Your task to perform on an android device: Go to Android settings Image 0: 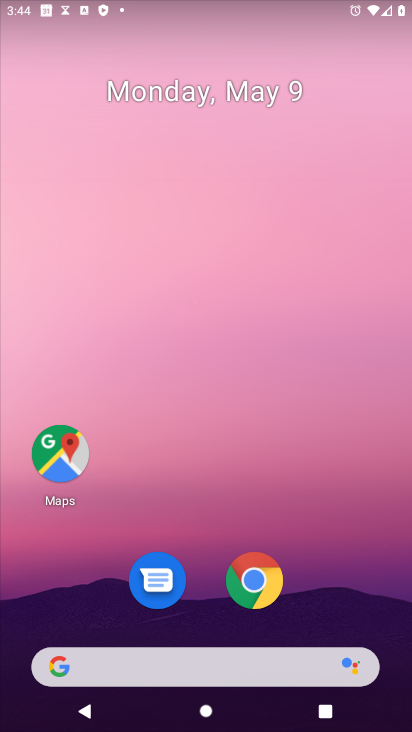
Step 0: drag from (300, 446) to (237, 62)
Your task to perform on an android device: Go to Android settings Image 1: 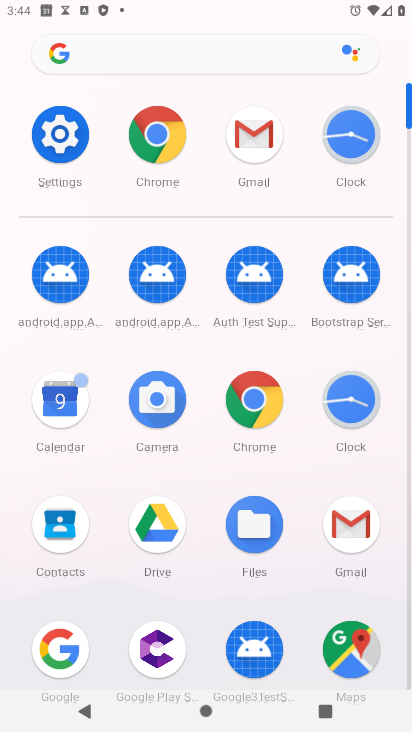
Step 1: click (52, 135)
Your task to perform on an android device: Go to Android settings Image 2: 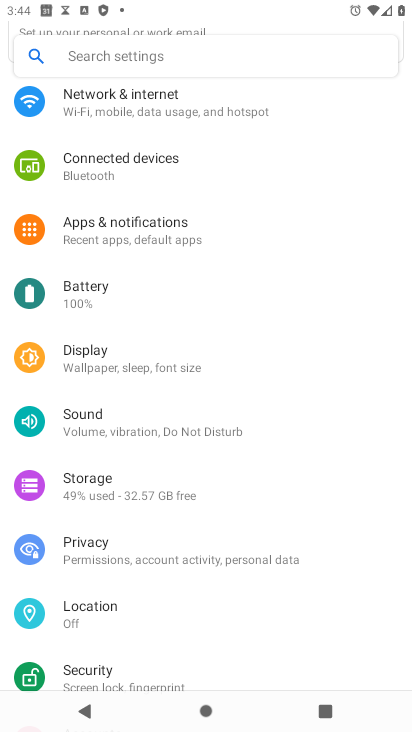
Step 2: drag from (246, 643) to (235, 114)
Your task to perform on an android device: Go to Android settings Image 3: 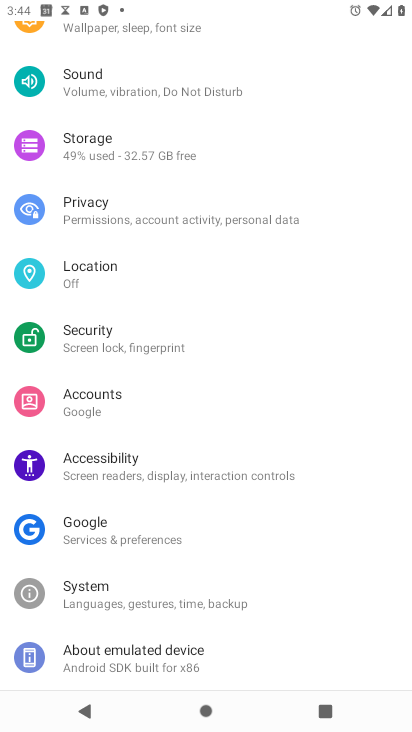
Step 3: click (144, 651)
Your task to perform on an android device: Go to Android settings Image 4: 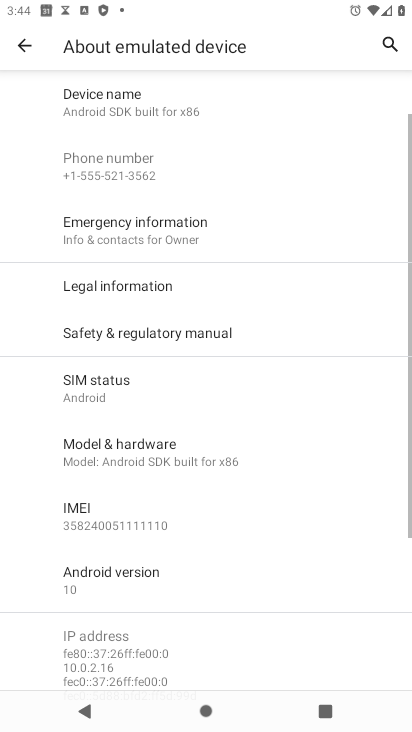
Step 4: click (122, 588)
Your task to perform on an android device: Go to Android settings Image 5: 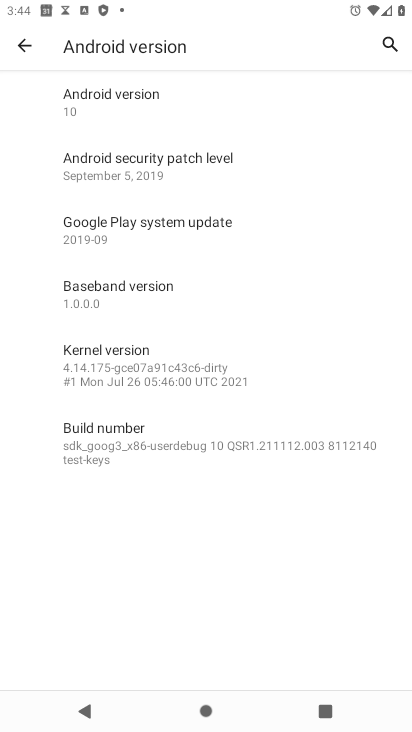
Step 5: task complete